Your task to perform on an android device: Open calendar and show me the second week of next month Image 0: 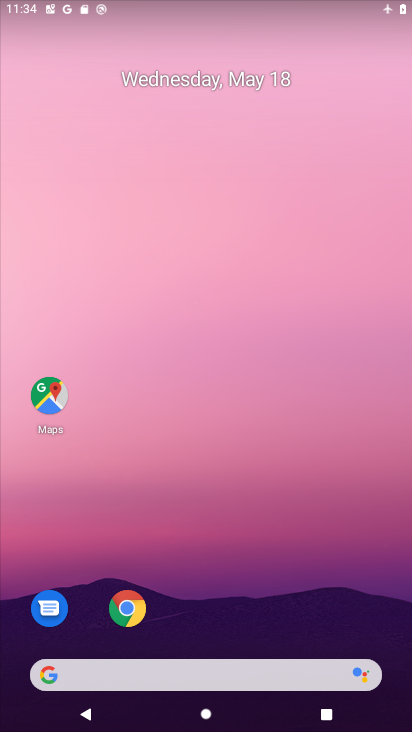
Step 0: drag from (200, 593) to (172, 40)
Your task to perform on an android device: Open calendar and show me the second week of next month Image 1: 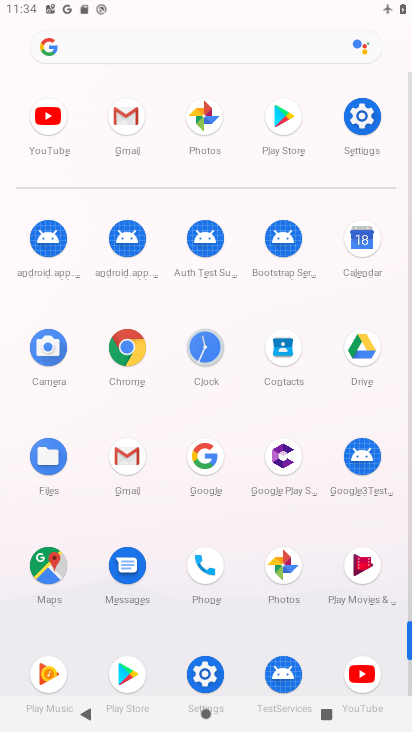
Step 1: click (362, 244)
Your task to perform on an android device: Open calendar and show me the second week of next month Image 2: 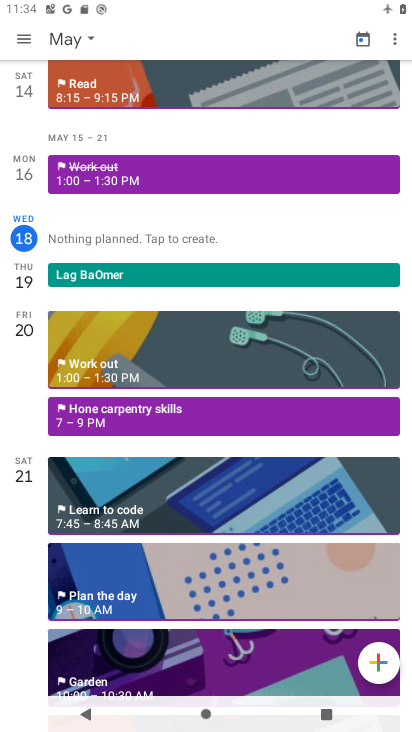
Step 2: click (72, 33)
Your task to perform on an android device: Open calendar and show me the second week of next month Image 3: 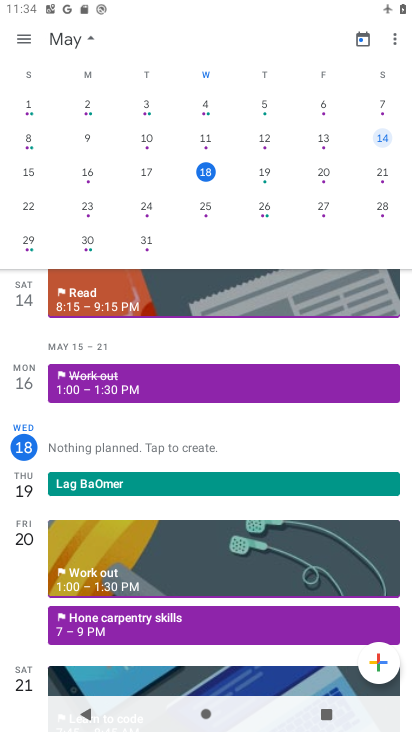
Step 3: drag from (348, 164) to (0, 145)
Your task to perform on an android device: Open calendar and show me the second week of next month Image 4: 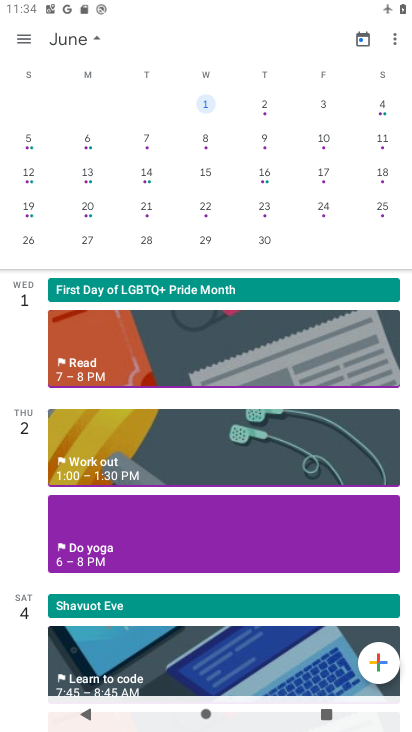
Step 4: click (25, 132)
Your task to perform on an android device: Open calendar and show me the second week of next month Image 5: 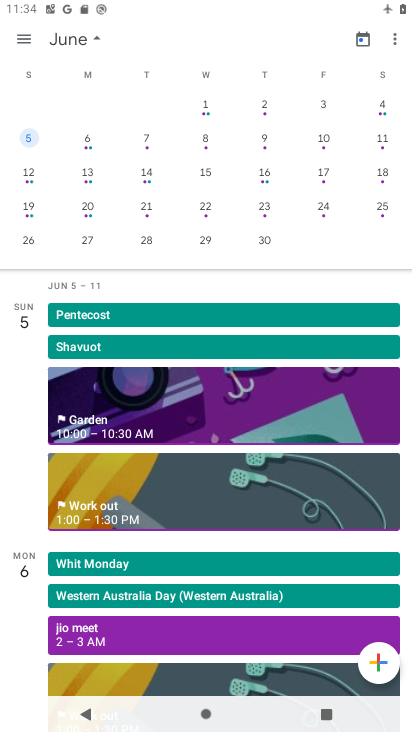
Step 5: click (22, 41)
Your task to perform on an android device: Open calendar and show me the second week of next month Image 6: 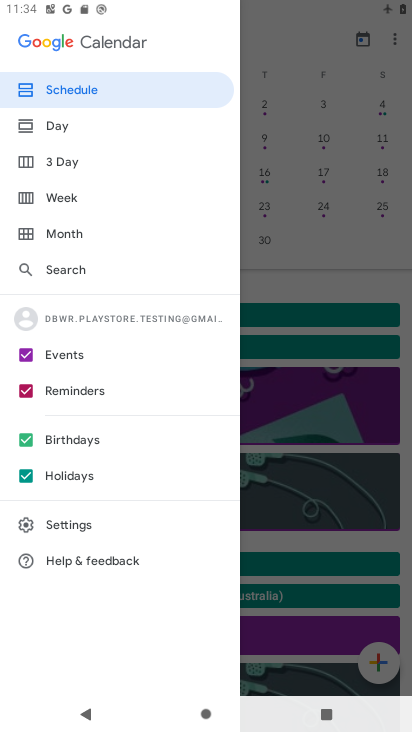
Step 6: click (58, 195)
Your task to perform on an android device: Open calendar and show me the second week of next month Image 7: 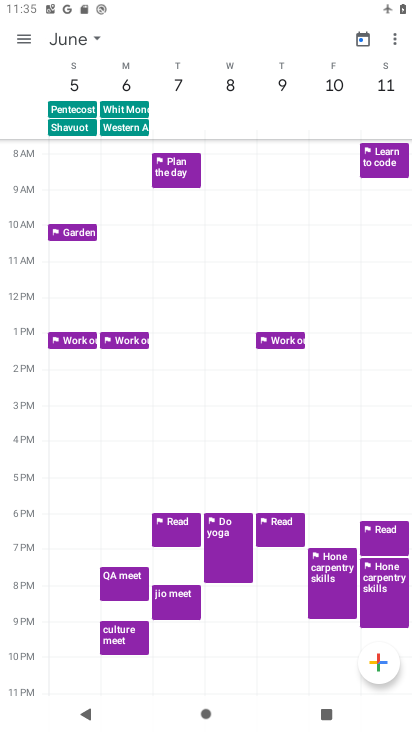
Step 7: task complete